Your task to perform on an android device: turn off location Image 0: 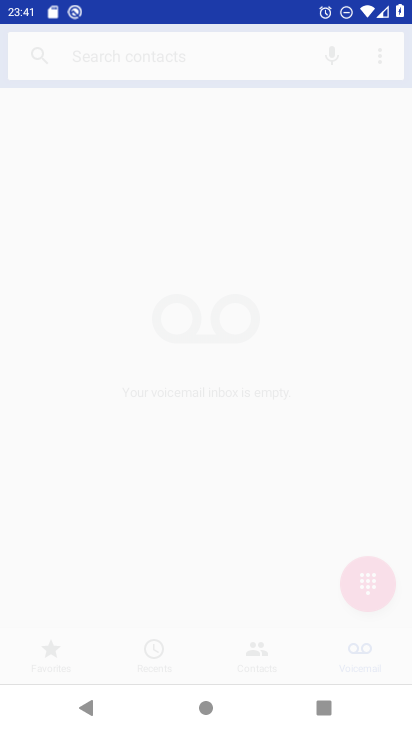
Step 0: press home button
Your task to perform on an android device: turn off location Image 1: 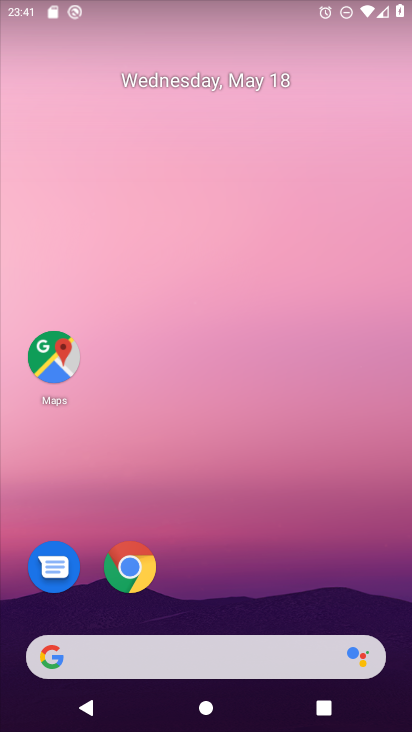
Step 1: drag from (267, 685) to (282, 237)
Your task to perform on an android device: turn off location Image 2: 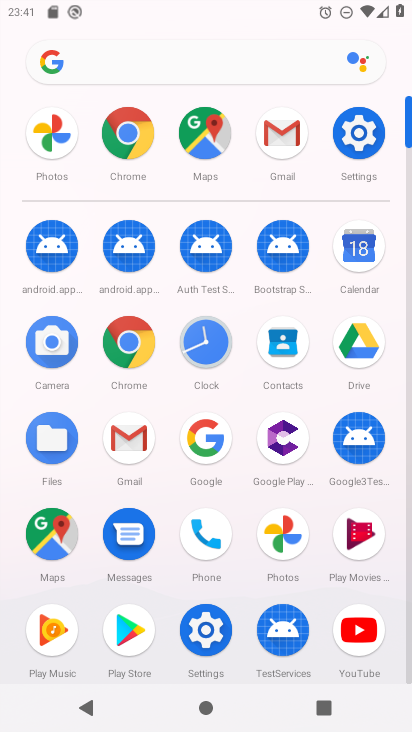
Step 2: click (345, 130)
Your task to perform on an android device: turn off location Image 3: 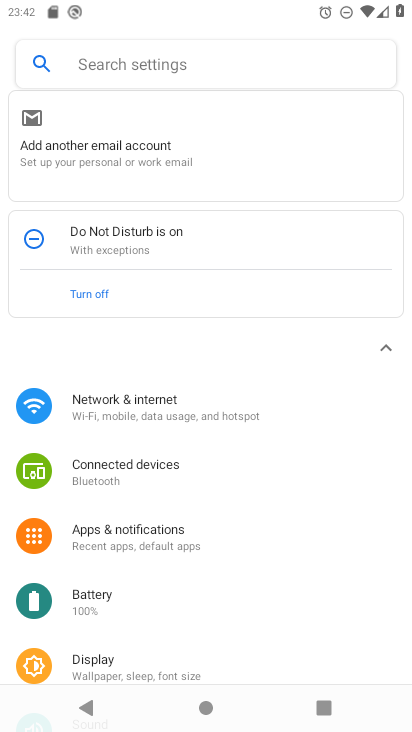
Step 3: click (149, 69)
Your task to perform on an android device: turn off location Image 4: 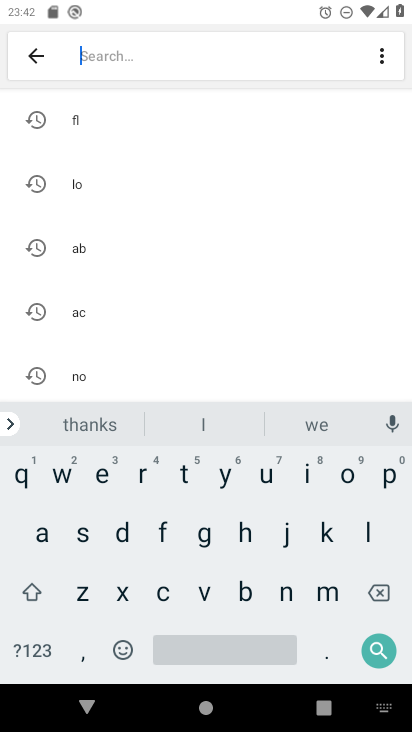
Step 4: click (351, 532)
Your task to perform on an android device: turn off location Image 5: 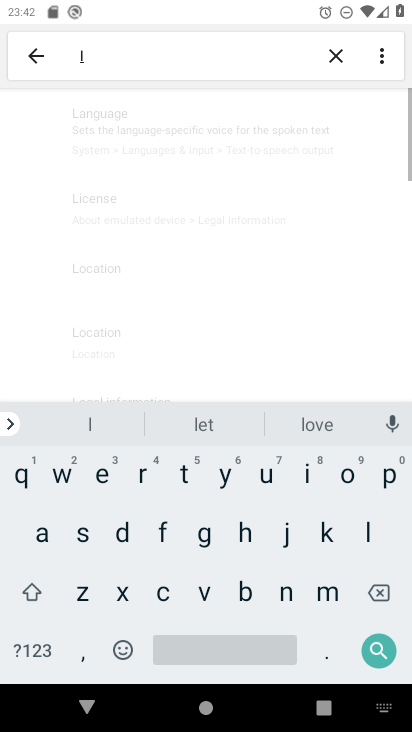
Step 5: click (340, 465)
Your task to perform on an android device: turn off location Image 6: 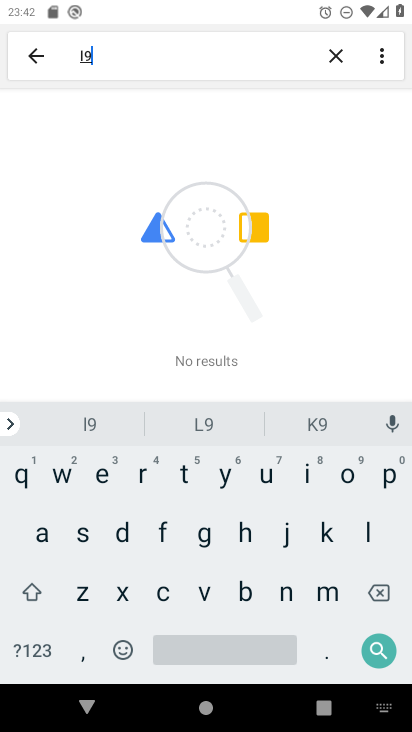
Step 6: click (389, 596)
Your task to perform on an android device: turn off location Image 7: 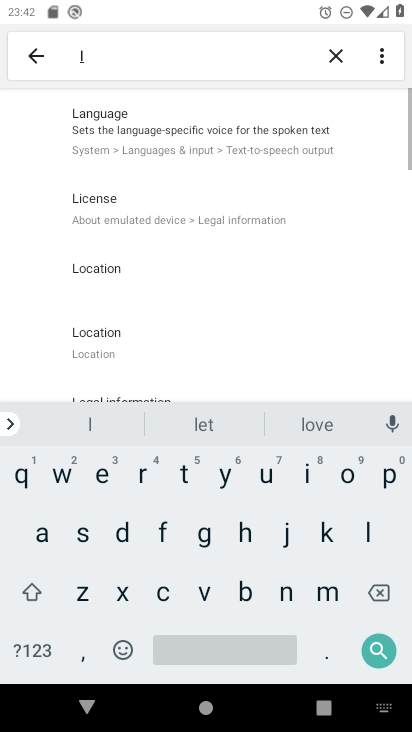
Step 7: click (346, 483)
Your task to perform on an android device: turn off location Image 8: 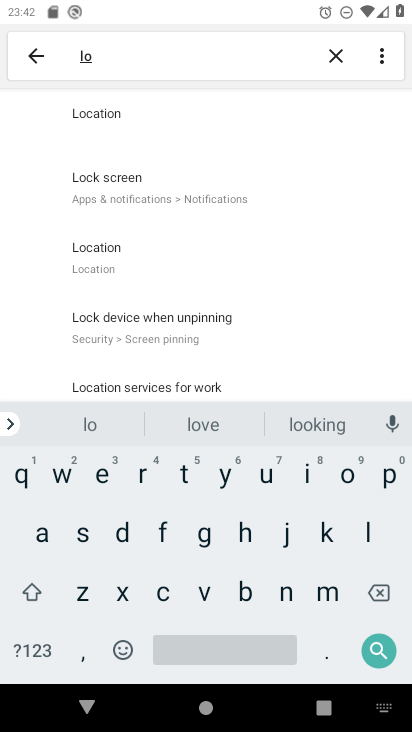
Step 8: click (120, 252)
Your task to perform on an android device: turn off location Image 9: 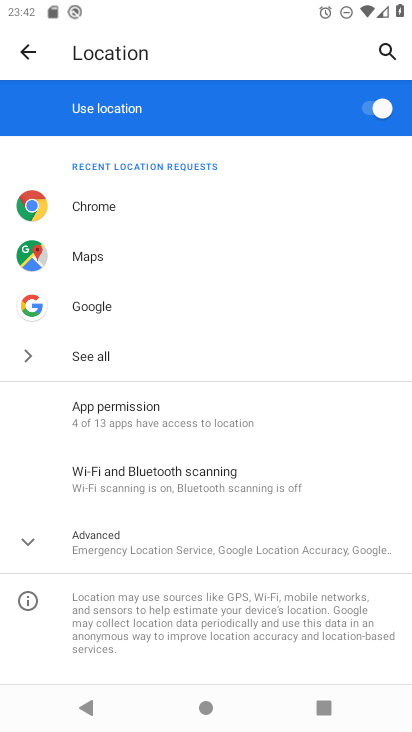
Step 9: click (372, 118)
Your task to perform on an android device: turn off location Image 10: 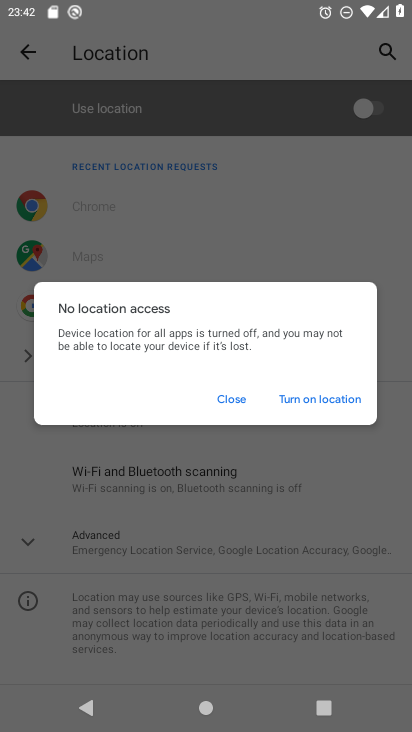
Step 10: task complete